Your task to perform on an android device: toggle wifi Image 0: 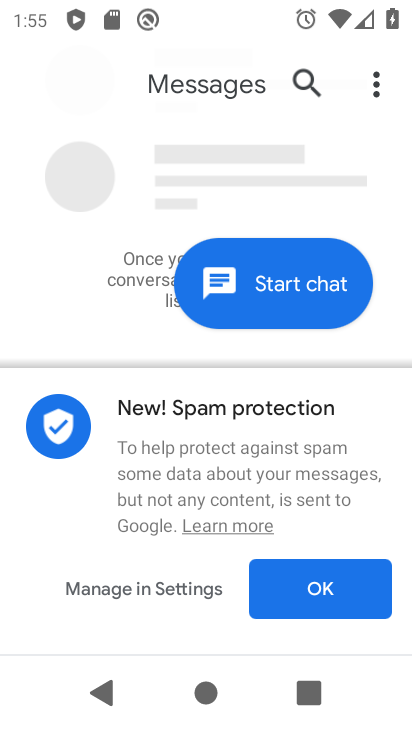
Step 0: press home button
Your task to perform on an android device: toggle wifi Image 1: 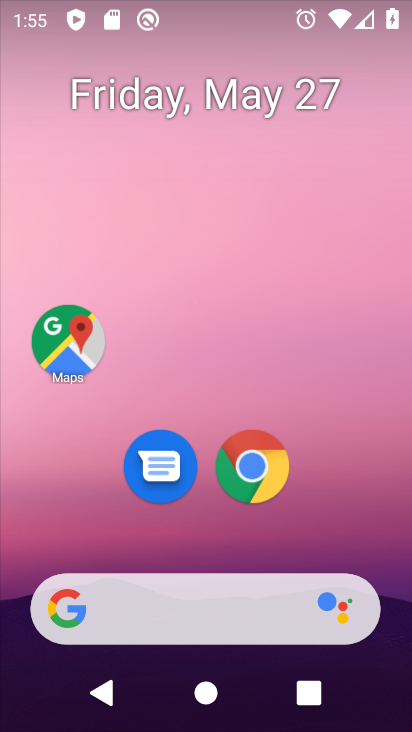
Step 1: drag from (244, 14) to (236, 405)
Your task to perform on an android device: toggle wifi Image 2: 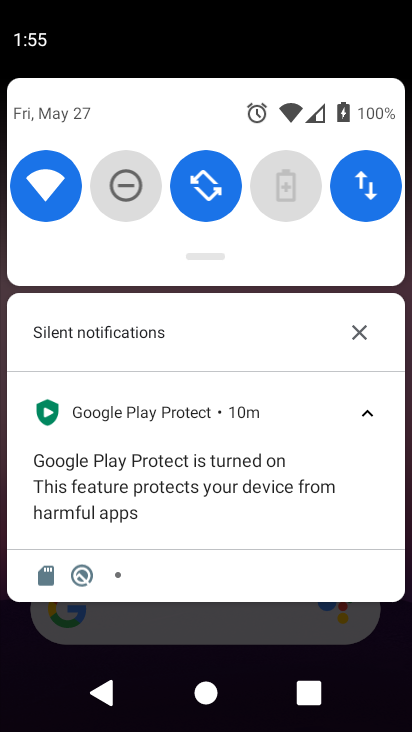
Step 2: click (42, 181)
Your task to perform on an android device: toggle wifi Image 3: 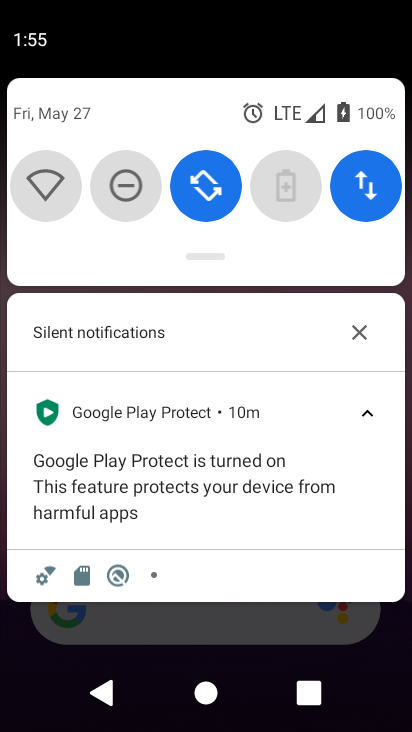
Step 3: task complete